Your task to perform on an android device: uninstall "Mercado Libre" Image 0: 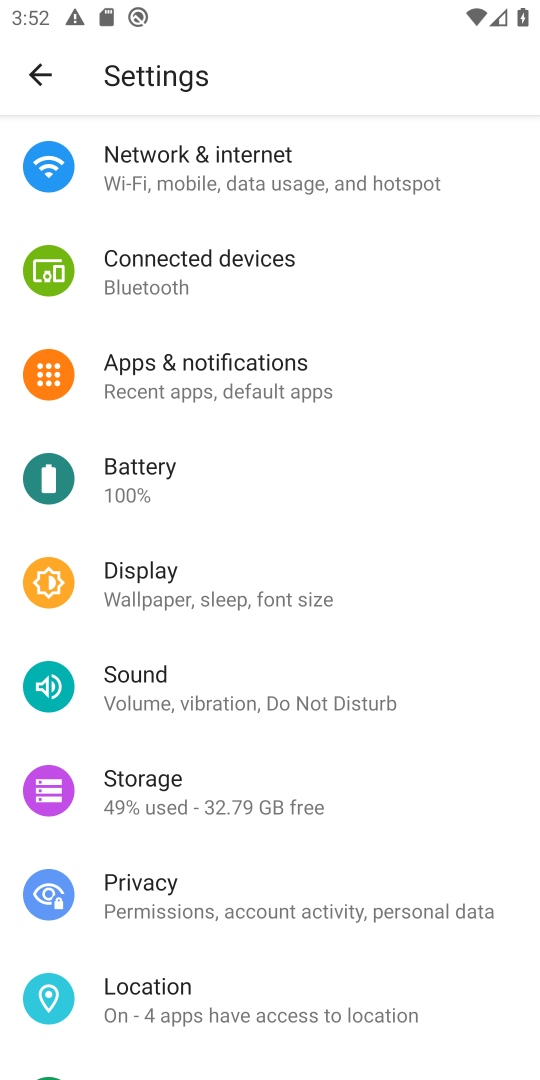
Step 0: press home button
Your task to perform on an android device: uninstall "Mercado Libre" Image 1: 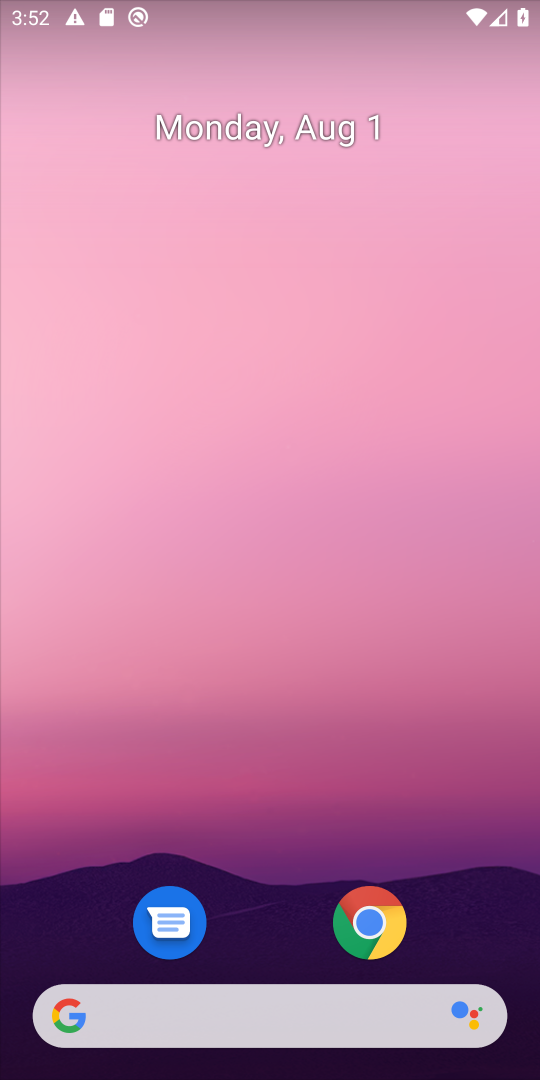
Step 1: drag from (258, 802) to (217, 5)
Your task to perform on an android device: uninstall "Mercado Libre" Image 2: 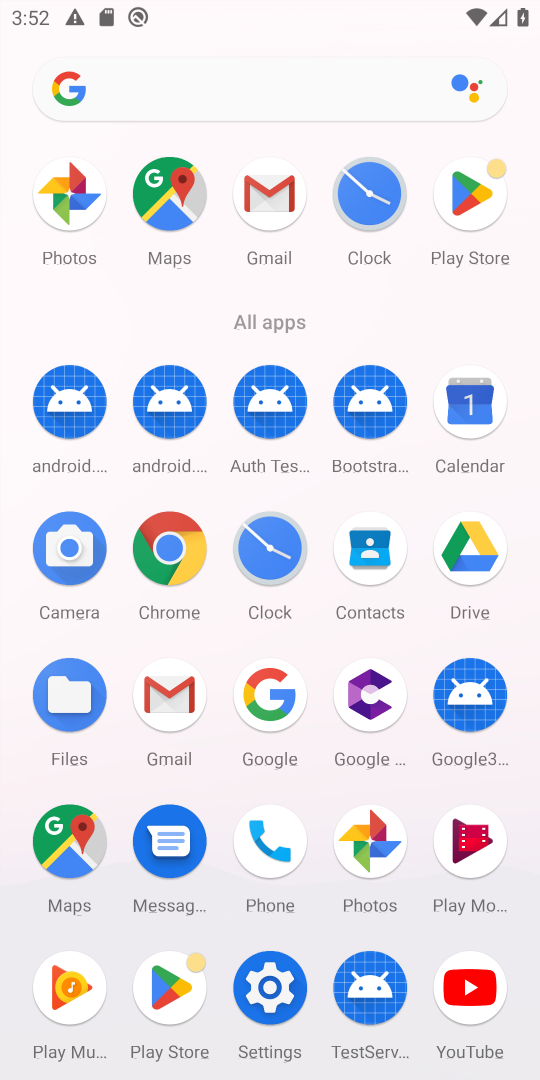
Step 2: click (469, 200)
Your task to perform on an android device: uninstall "Mercado Libre" Image 3: 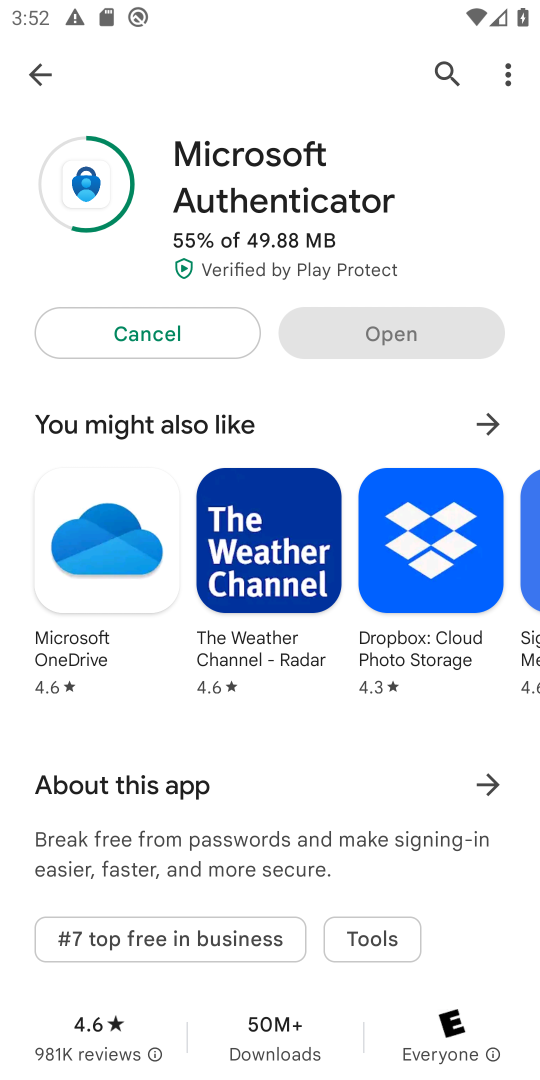
Step 3: click (437, 72)
Your task to perform on an android device: uninstall "Mercado Libre" Image 4: 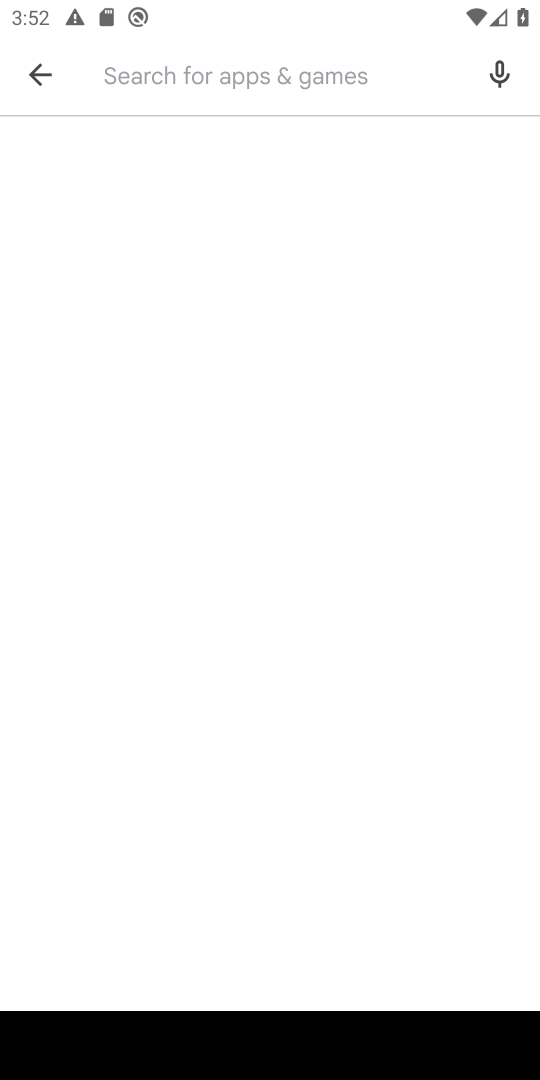
Step 4: click (327, 92)
Your task to perform on an android device: uninstall "Mercado Libre" Image 5: 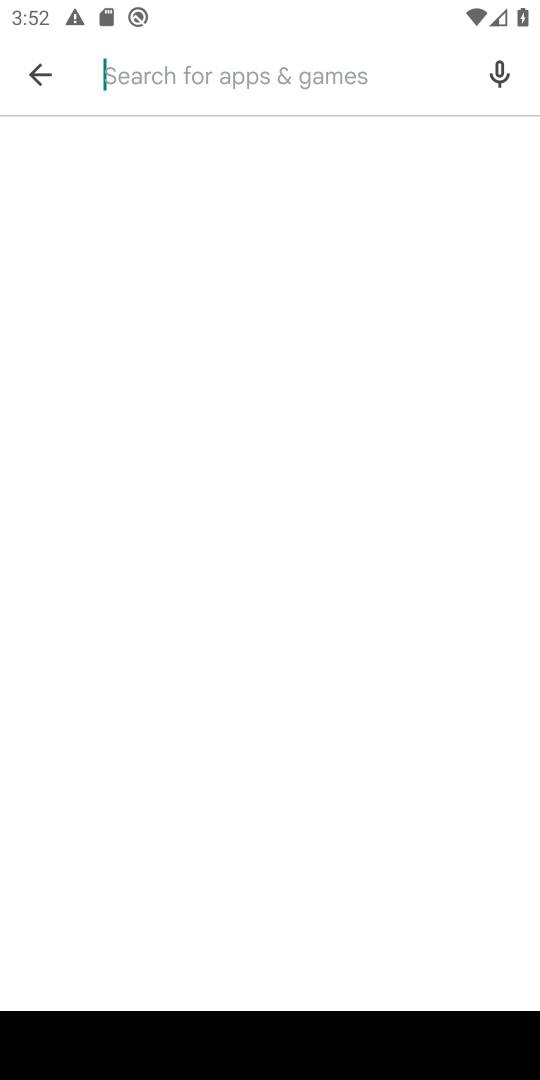
Step 5: type "Mercado Libre"
Your task to perform on an android device: uninstall "Mercado Libre" Image 6: 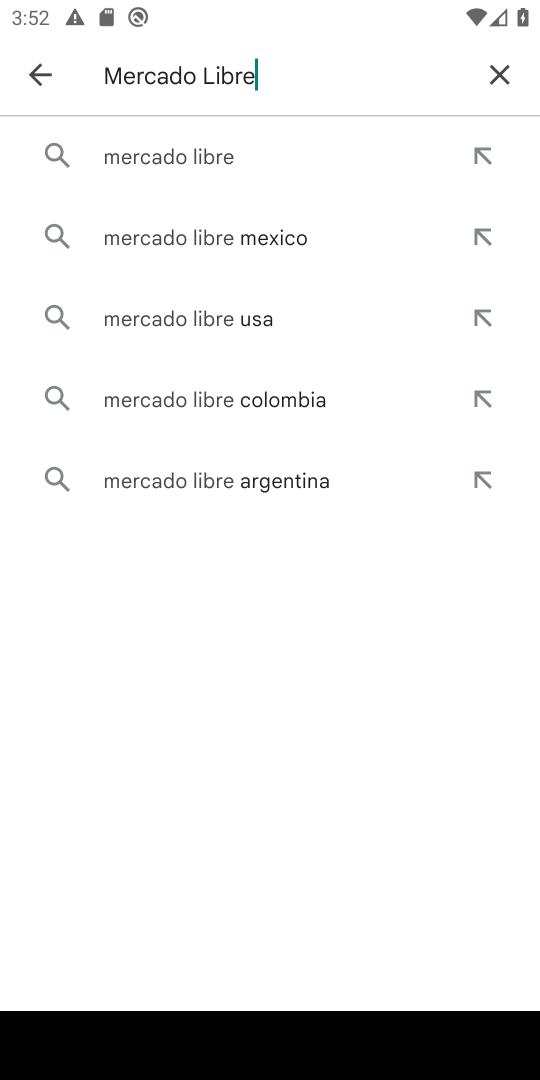
Step 6: click (179, 161)
Your task to perform on an android device: uninstall "Mercado Libre" Image 7: 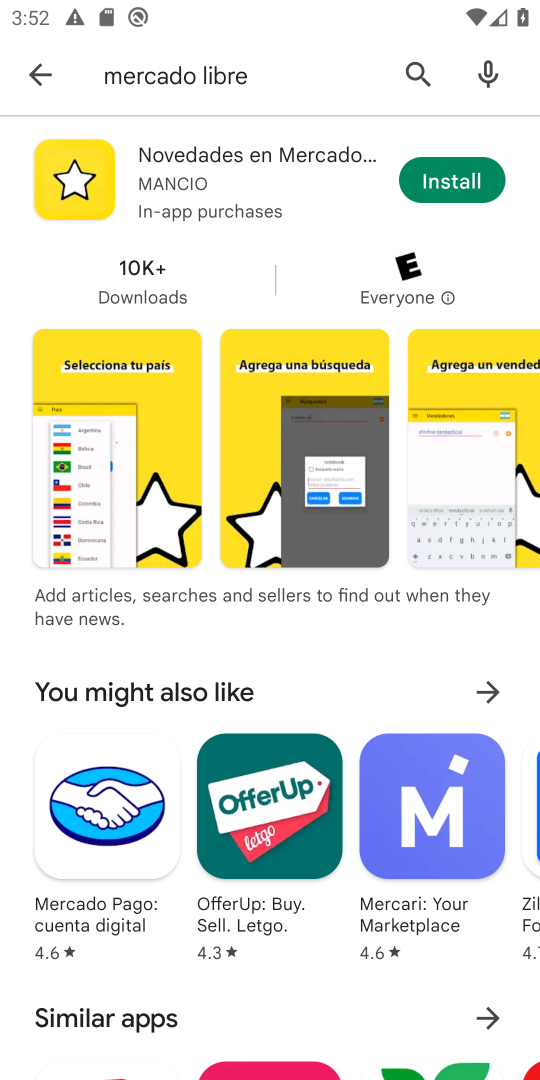
Step 7: task complete